Your task to perform on an android device: open chrome and create a bookmark for the current page Image 0: 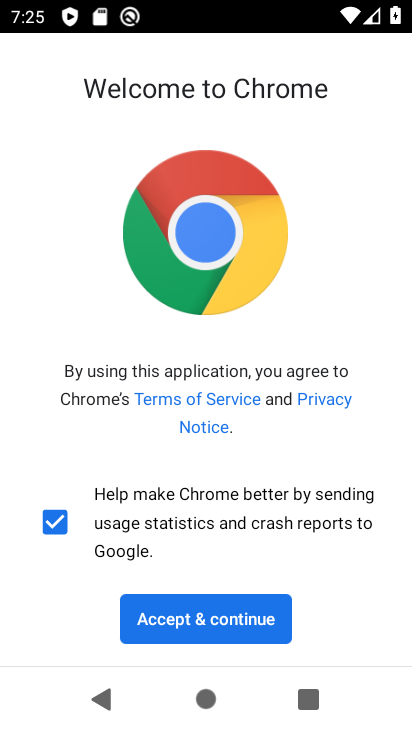
Step 0: press home button
Your task to perform on an android device: open chrome and create a bookmark for the current page Image 1: 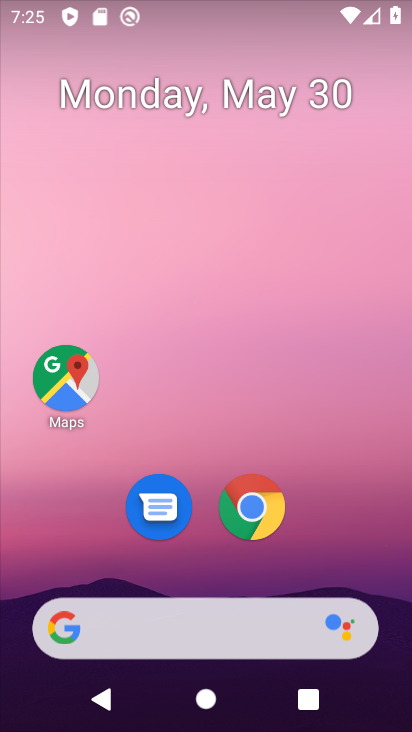
Step 1: drag from (372, 501) to (343, 93)
Your task to perform on an android device: open chrome and create a bookmark for the current page Image 2: 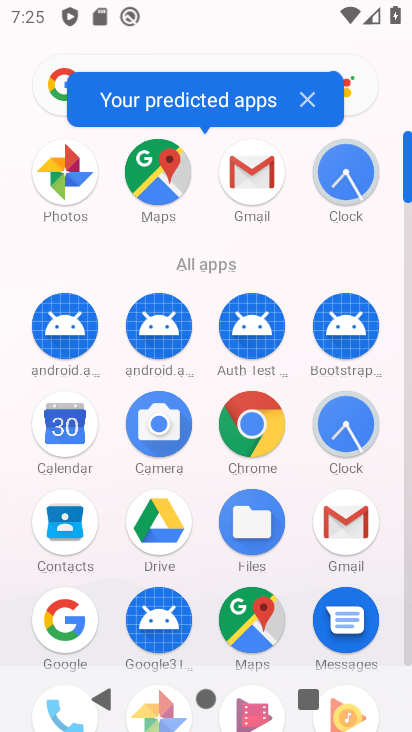
Step 2: click (248, 421)
Your task to perform on an android device: open chrome and create a bookmark for the current page Image 3: 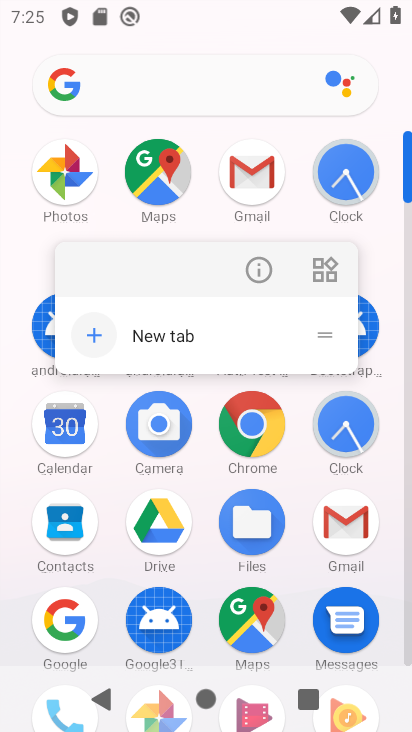
Step 3: click (254, 455)
Your task to perform on an android device: open chrome and create a bookmark for the current page Image 4: 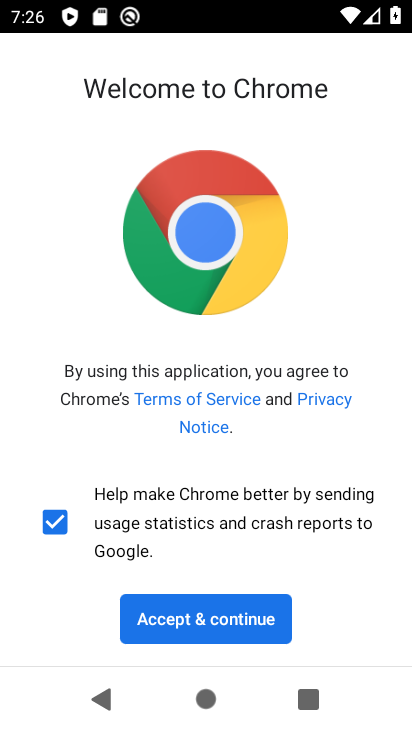
Step 4: click (275, 614)
Your task to perform on an android device: open chrome and create a bookmark for the current page Image 5: 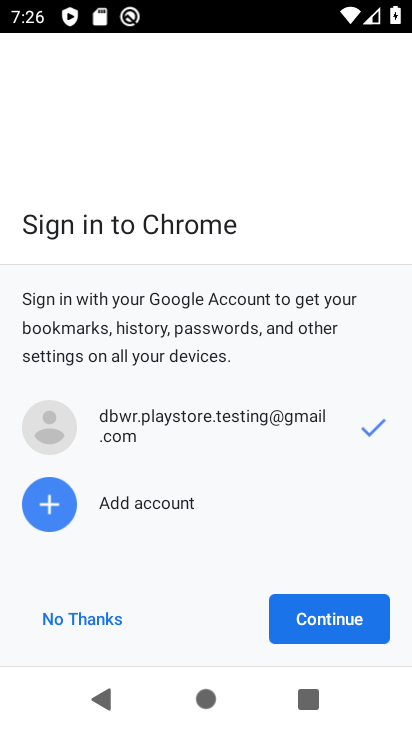
Step 5: click (308, 617)
Your task to perform on an android device: open chrome and create a bookmark for the current page Image 6: 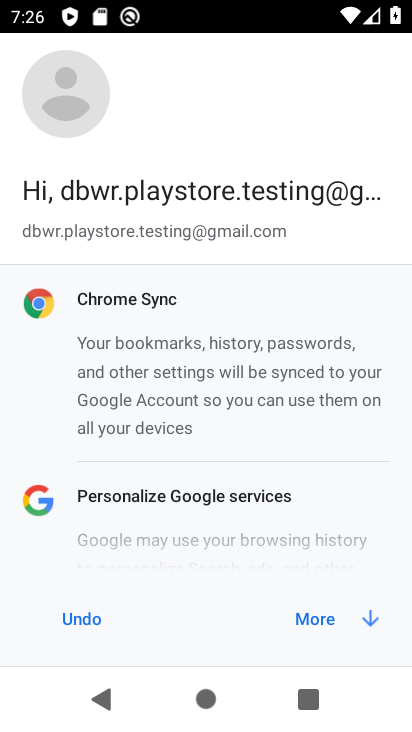
Step 6: click (308, 617)
Your task to perform on an android device: open chrome and create a bookmark for the current page Image 7: 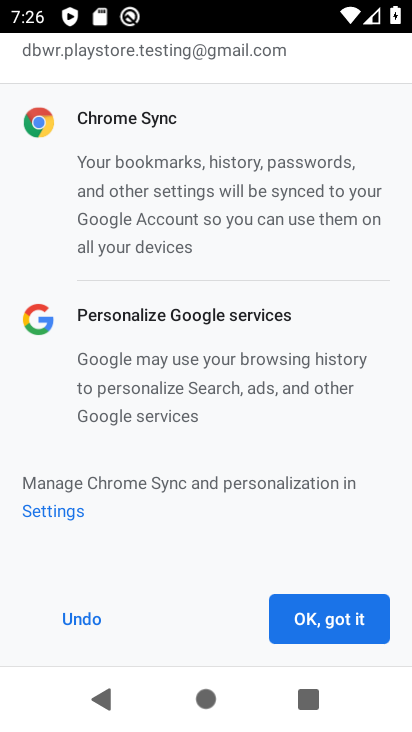
Step 7: click (308, 617)
Your task to perform on an android device: open chrome and create a bookmark for the current page Image 8: 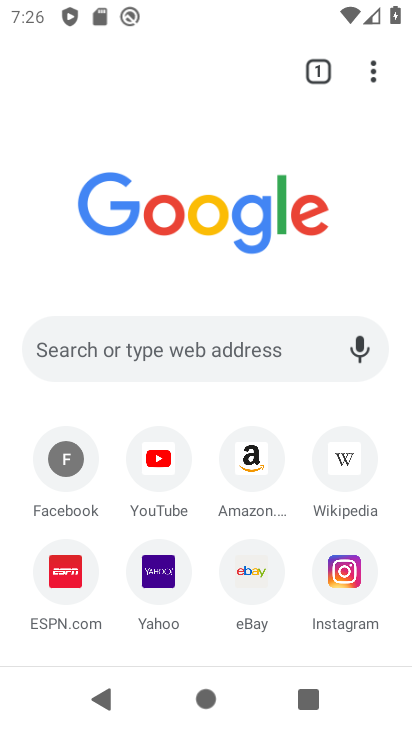
Step 8: click (262, 367)
Your task to perform on an android device: open chrome and create a bookmark for the current page Image 9: 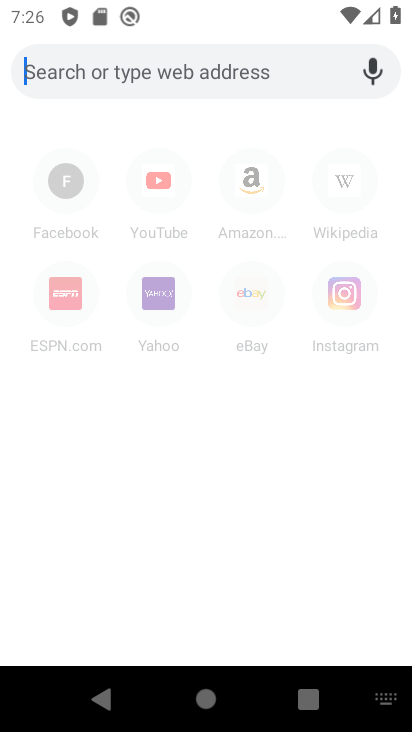
Step 9: type "cricbuzz"
Your task to perform on an android device: open chrome and create a bookmark for the current page Image 10: 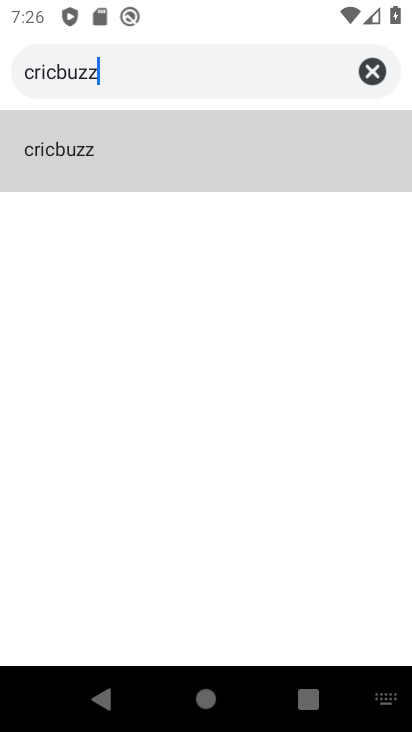
Step 10: click (97, 142)
Your task to perform on an android device: open chrome and create a bookmark for the current page Image 11: 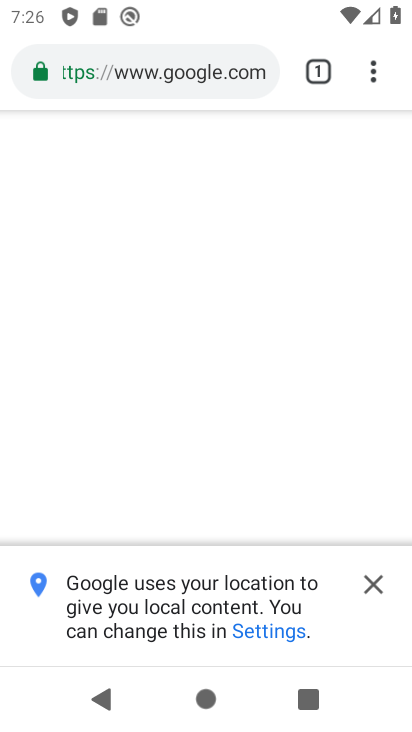
Step 11: click (383, 586)
Your task to perform on an android device: open chrome and create a bookmark for the current page Image 12: 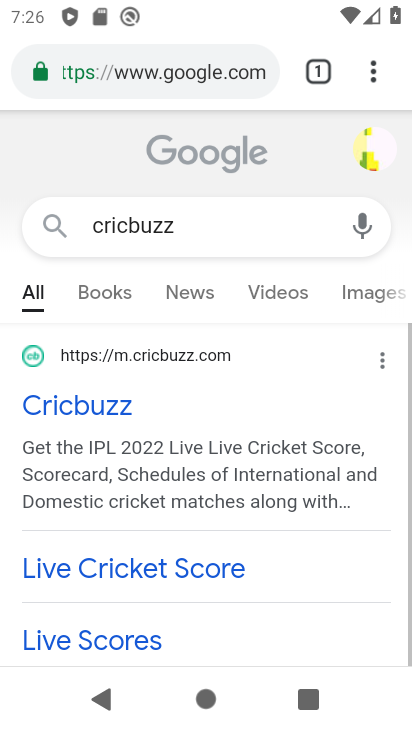
Step 12: click (95, 410)
Your task to perform on an android device: open chrome and create a bookmark for the current page Image 13: 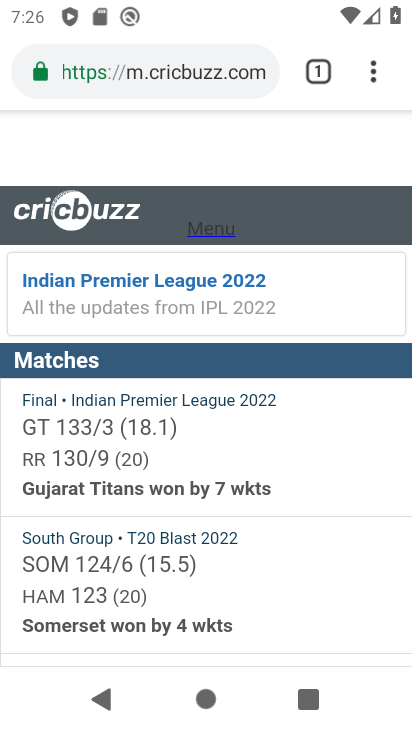
Step 13: task complete